Your task to perform on an android device: Open the calendar and show me this week's events? Image 0: 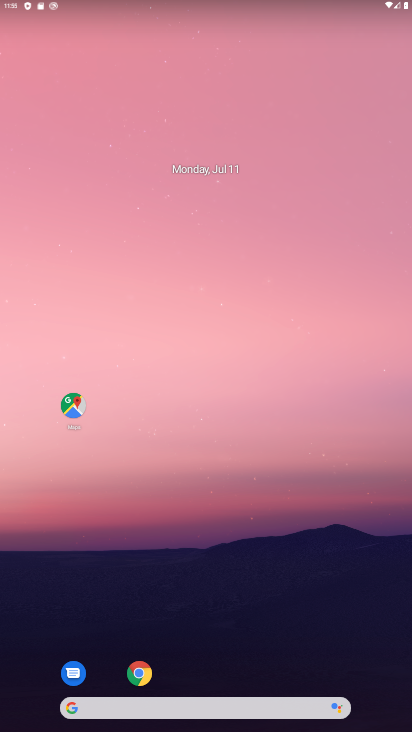
Step 0: drag from (262, 415) to (244, 174)
Your task to perform on an android device: Open the calendar and show me this week's events? Image 1: 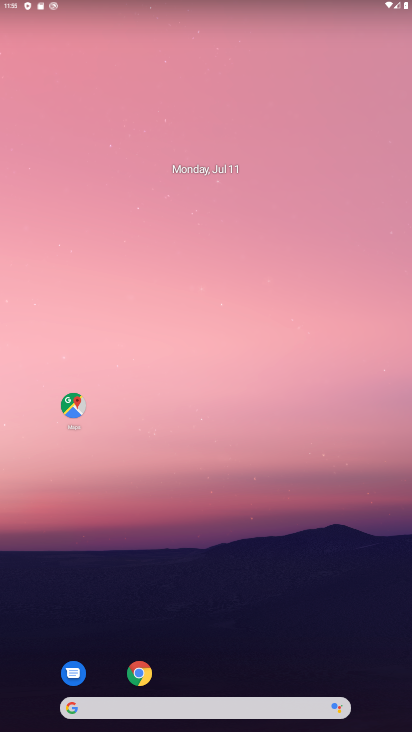
Step 1: drag from (251, 639) to (264, 185)
Your task to perform on an android device: Open the calendar and show me this week's events? Image 2: 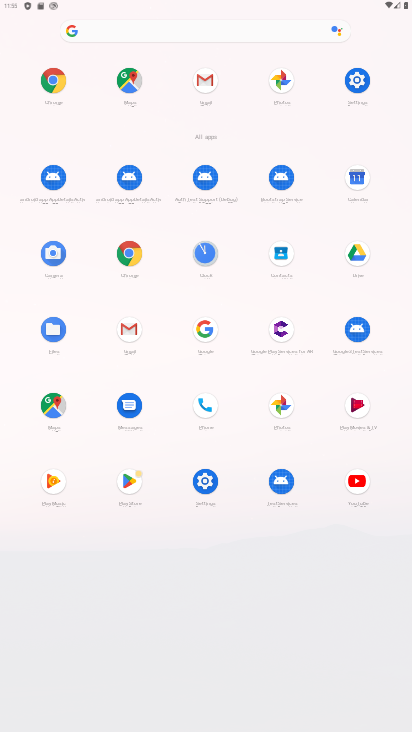
Step 2: click (363, 178)
Your task to perform on an android device: Open the calendar and show me this week's events? Image 3: 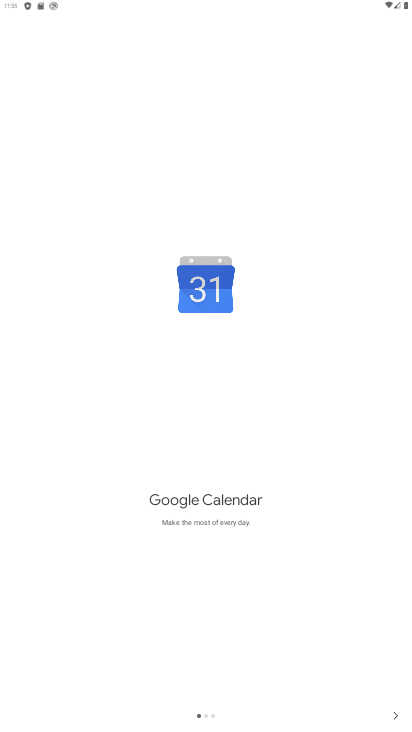
Step 3: click (396, 713)
Your task to perform on an android device: Open the calendar and show me this week's events? Image 4: 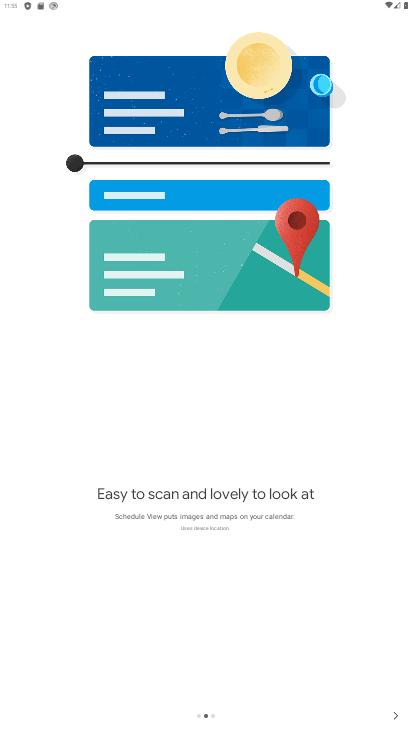
Step 4: click (398, 722)
Your task to perform on an android device: Open the calendar and show me this week's events? Image 5: 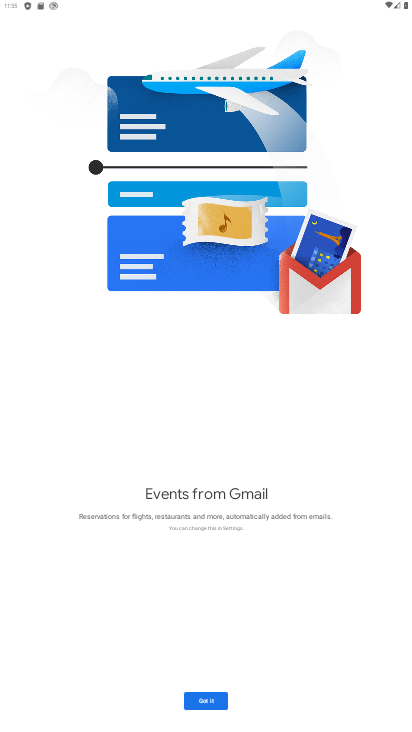
Step 5: click (202, 705)
Your task to perform on an android device: Open the calendar and show me this week's events? Image 6: 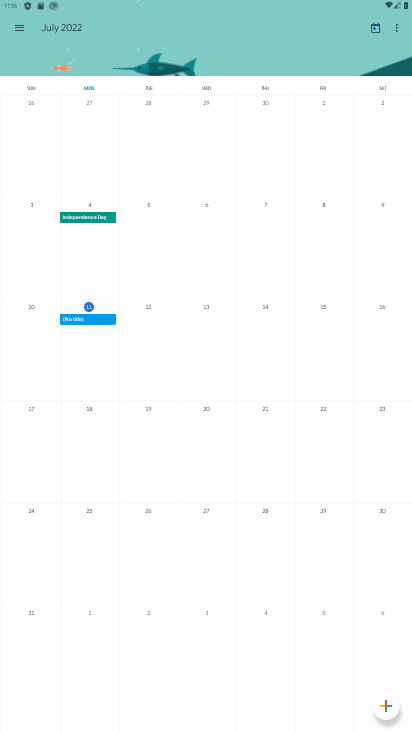
Step 6: click (16, 25)
Your task to perform on an android device: Open the calendar and show me this week's events? Image 7: 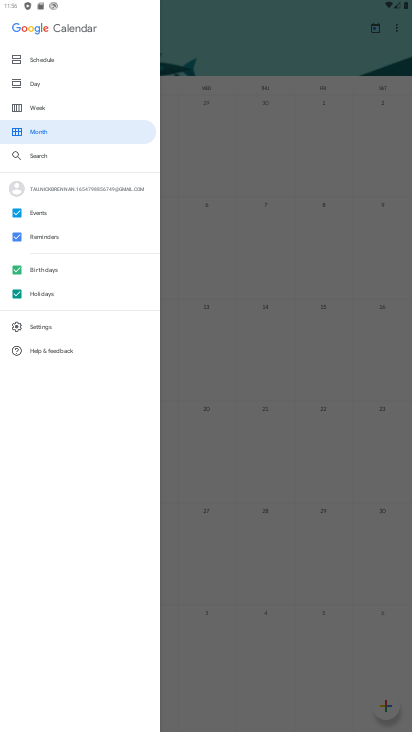
Step 7: click (12, 296)
Your task to perform on an android device: Open the calendar and show me this week's events? Image 8: 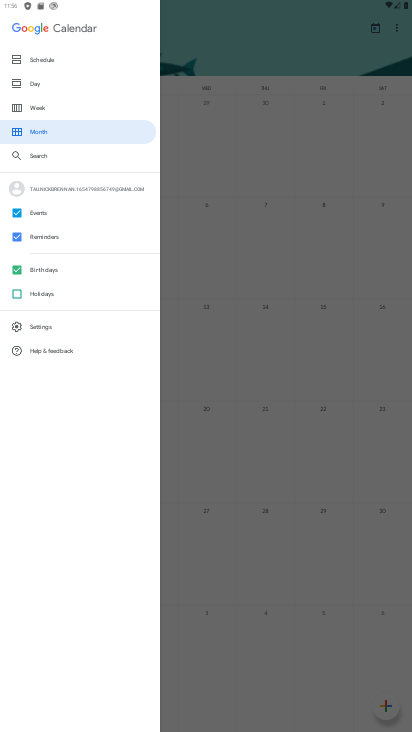
Step 8: click (16, 266)
Your task to perform on an android device: Open the calendar and show me this week's events? Image 9: 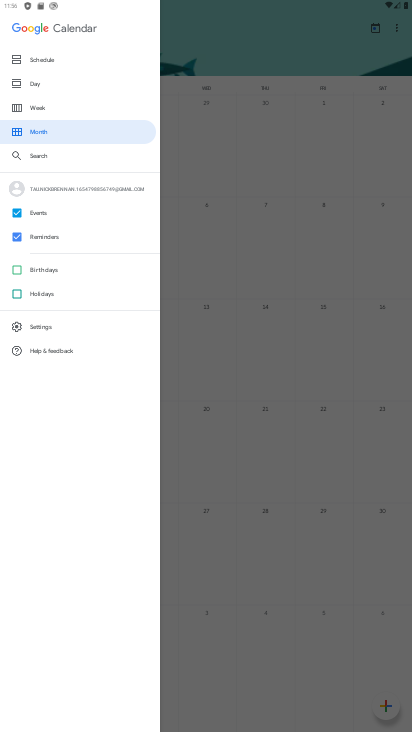
Step 9: click (15, 237)
Your task to perform on an android device: Open the calendar and show me this week's events? Image 10: 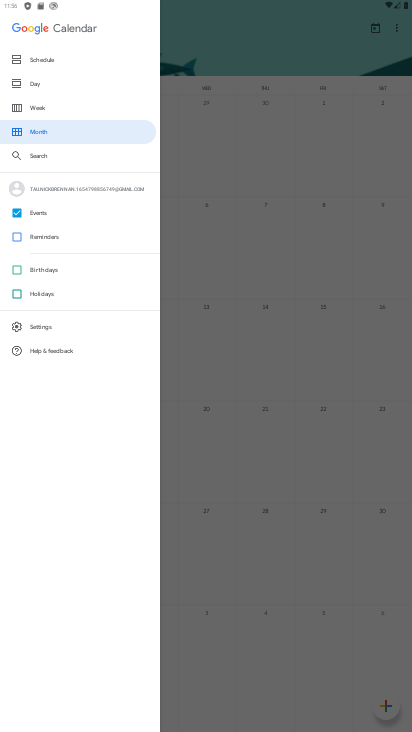
Step 10: click (62, 110)
Your task to perform on an android device: Open the calendar and show me this week's events? Image 11: 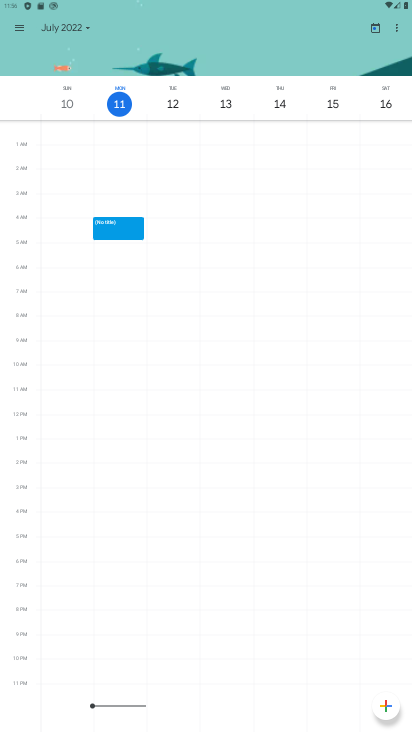
Step 11: task complete